Your task to perform on an android device: find photos in the google photos app Image 0: 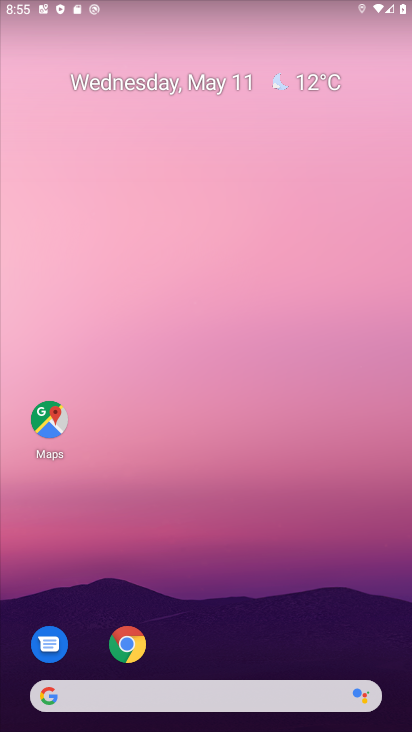
Step 0: drag from (185, 589) to (119, 319)
Your task to perform on an android device: find photos in the google photos app Image 1: 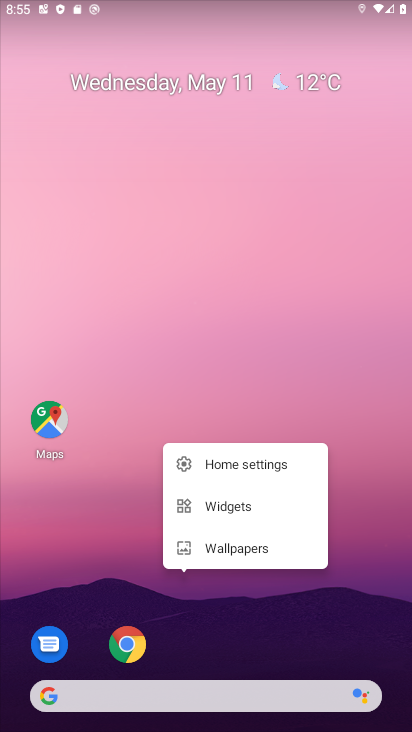
Step 1: drag from (181, 636) to (167, 249)
Your task to perform on an android device: find photos in the google photos app Image 2: 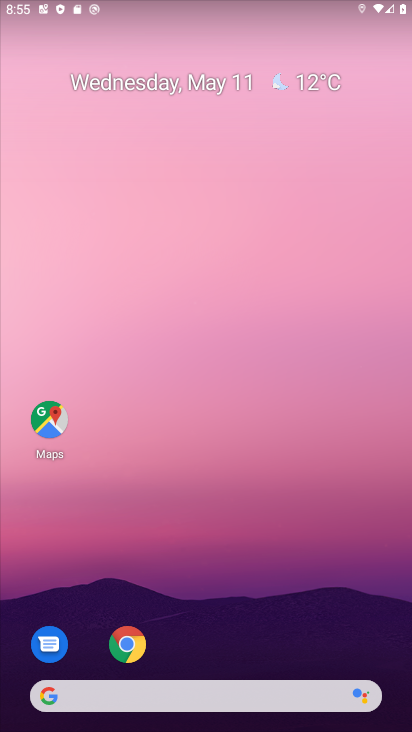
Step 2: drag from (220, 658) to (197, 183)
Your task to perform on an android device: find photos in the google photos app Image 3: 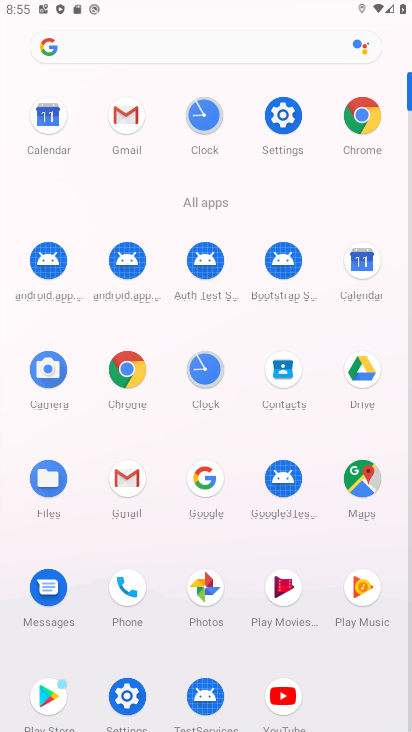
Step 3: click (210, 605)
Your task to perform on an android device: find photos in the google photos app Image 4: 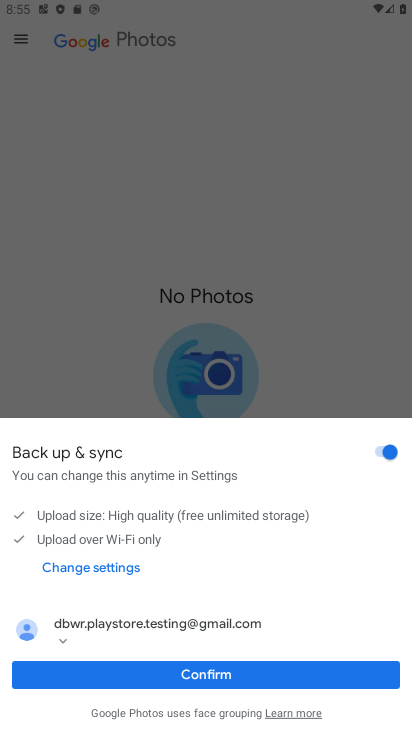
Step 4: click (236, 681)
Your task to perform on an android device: find photos in the google photos app Image 5: 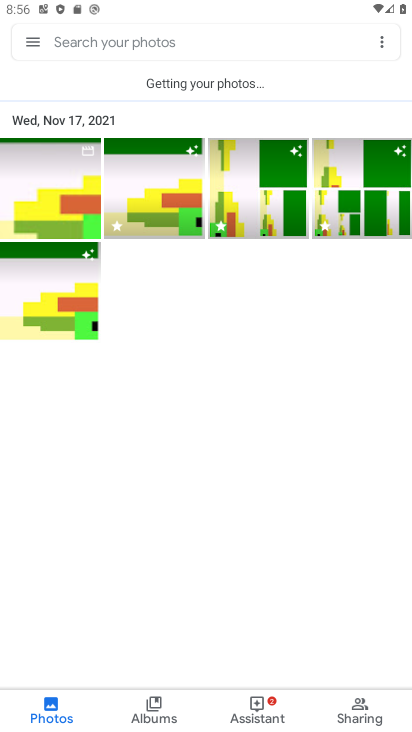
Step 5: task complete